Your task to perform on an android device: toggle notifications settings in the gmail app Image 0: 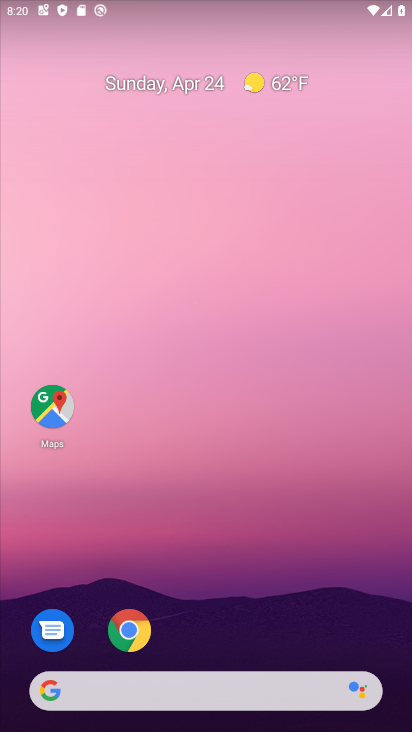
Step 0: drag from (331, 546) to (349, 70)
Your task to perform on an android device: toggle notifications settings in the gmail app Image 1: 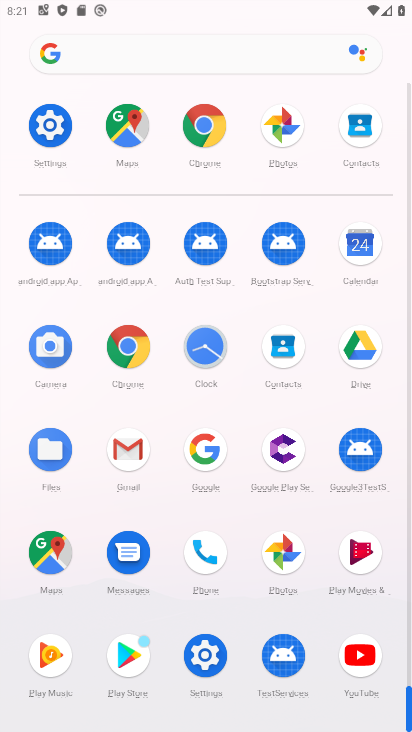
Step 1: drag from (7, 587) to (16, 312)
Your task to perform on an android device: toggle notifications settings in the gmail app Image 2: 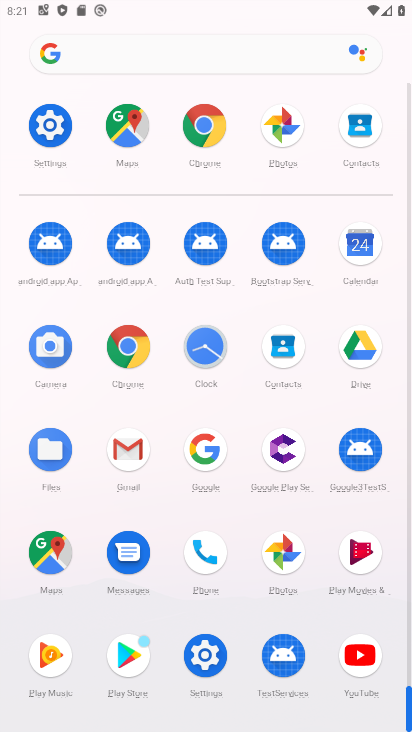
Step 2: click (124, 446)
Your task to perform on an android device: toggle notifications settings in the gmail app Image 3: 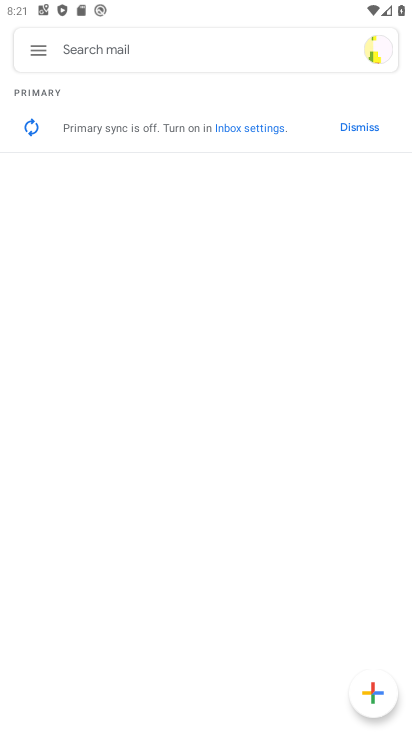
Step 3: click (33, 53)
Your task to perform on an android device: toggle notifications settings in the gmail app Image 4: 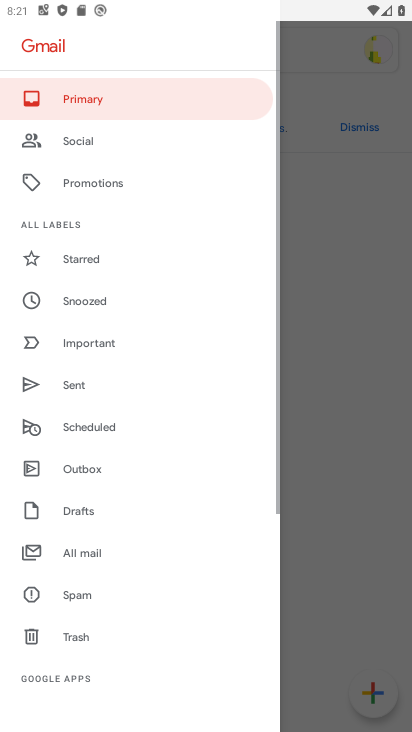
Step 4: drag from (158, 606) to (177, 201)
Your task to perform on an android device: toggle notifications settings in the gmail app Image 5: 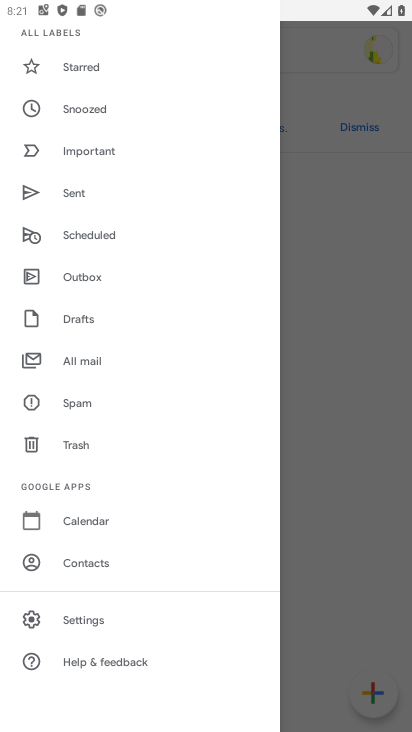
Step 5: click (86, 613)
Your task to perform on an android device: toggle notifications settings in the gmail app Image 6: 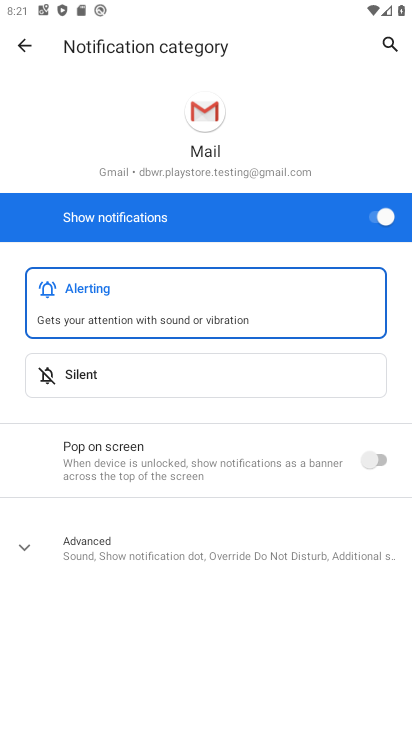
Step 6: click (361, 215)
Your task to perform on an android device: toggle notifications settings in the gmail app Image 7: 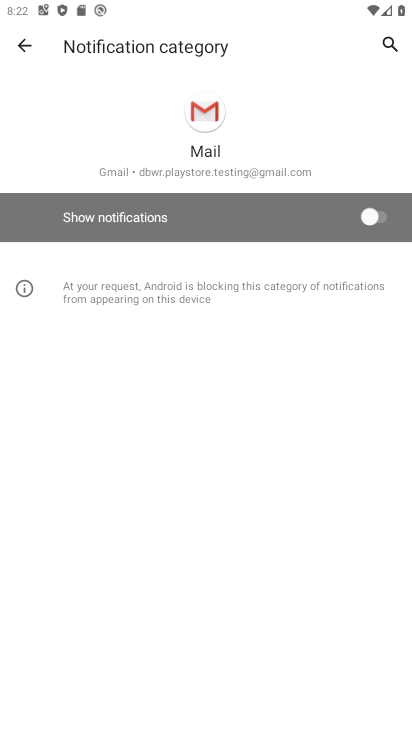
Step 7: task complete